Your task to perform on an android device: Open the map Image 0: 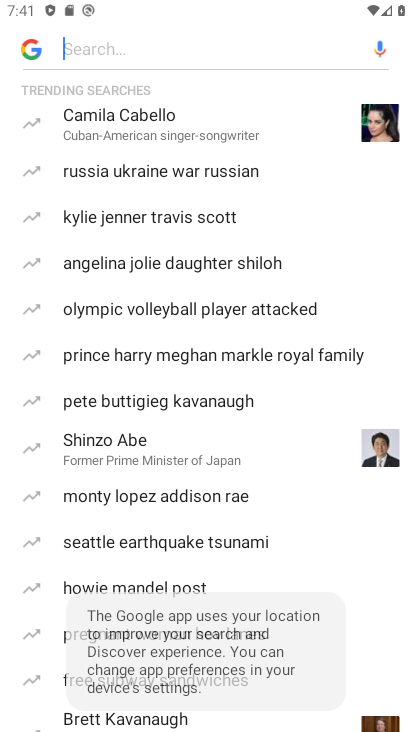
Step 0: press home button
Your task to perform on an android device: Open the map Image 1: 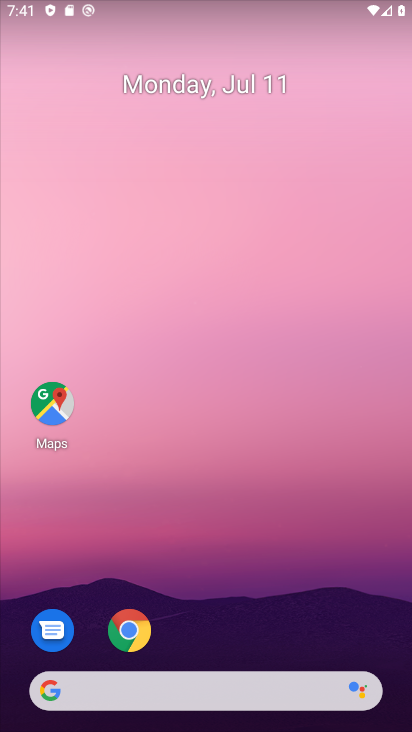
Step 1: click (52, 404)
Your task to perform on an android device: Open the map Image 2: 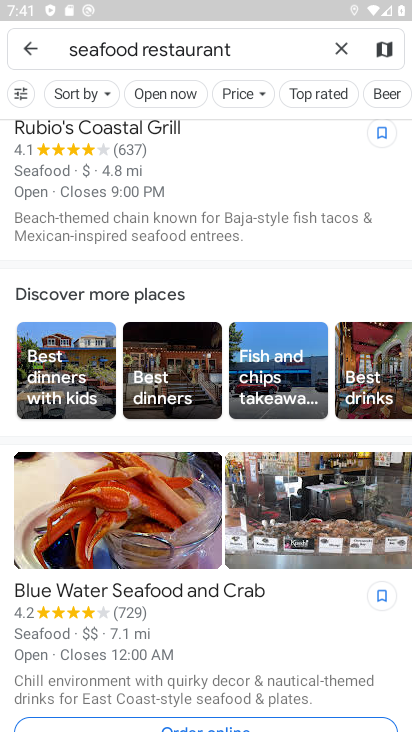
Step 2: click (29, 46)
Your task to perform on an android device: Open the map Image 3: 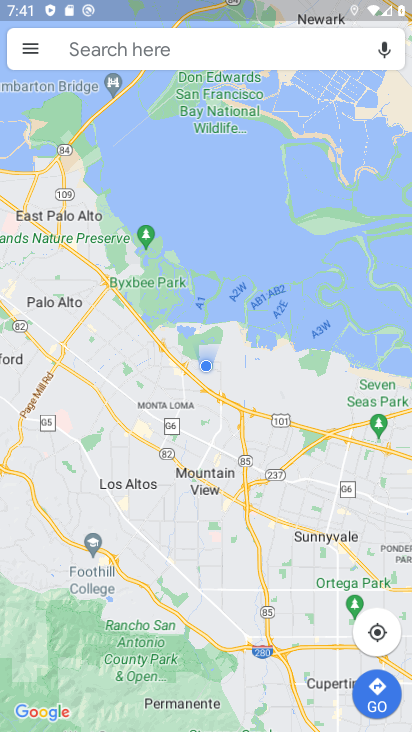
Step 3: click (29, 41)
Your task to perform on an android device: Open the map Image 4: 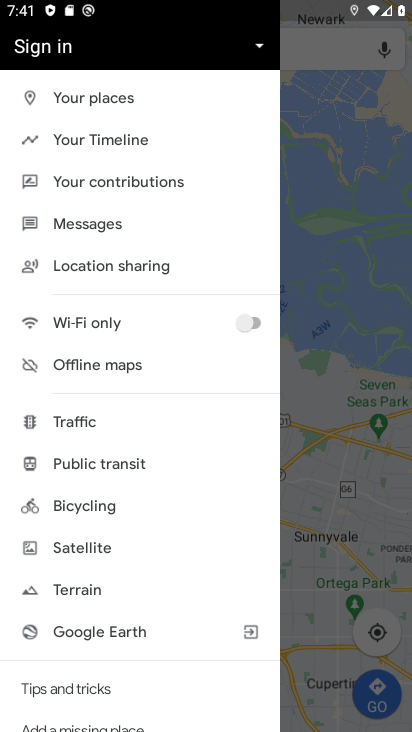
Step 4: task complete